Your task to perform on an android device: Is it going to rain this weekend? Image 0: 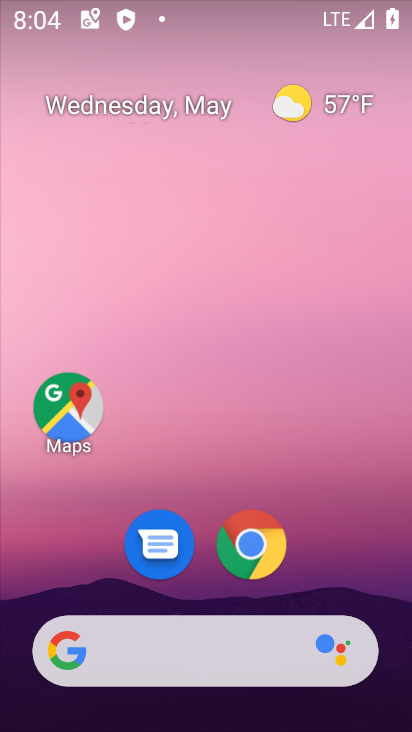
Step 0: drag from (334, 570) to (226, 8)
Your task to perform on an android device: Is it going to rain this weekend? Image 1: 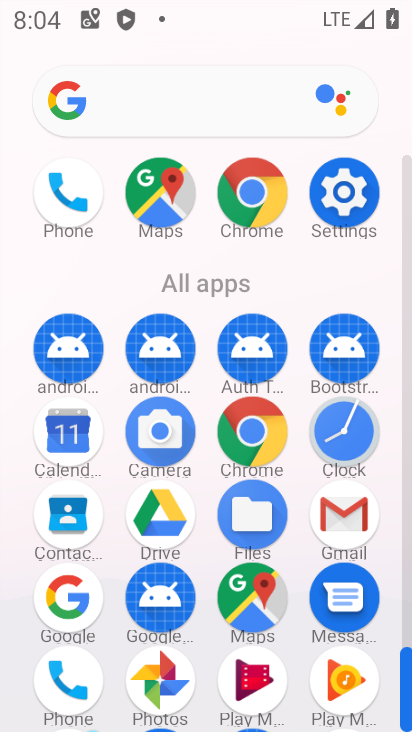
Step 1: click (254, 188)
Your task to perform on an android device: Is it going to rain this weekend? Image 2: 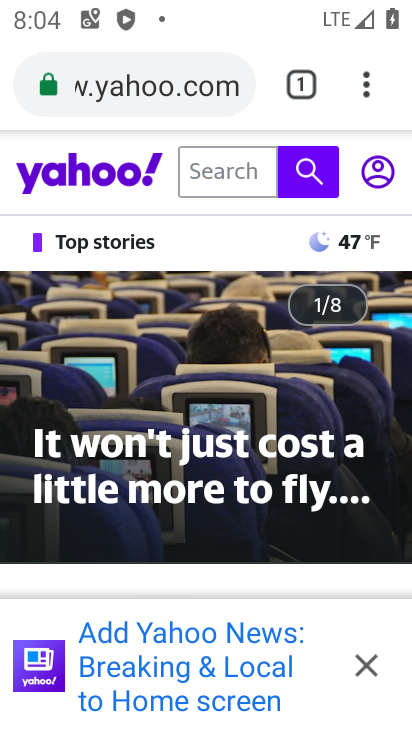
Step 2: click (191, 91)
Your task to perform on an android device: Is it going to rain this weekend? Image 3: 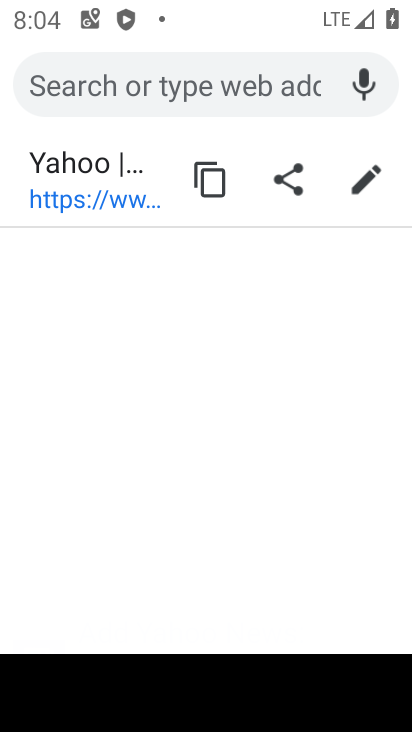
Step 3: type "Is it going to rain this weekend?"
Your task to perform on an android device: Is it going to rain this weekend? Image 4: 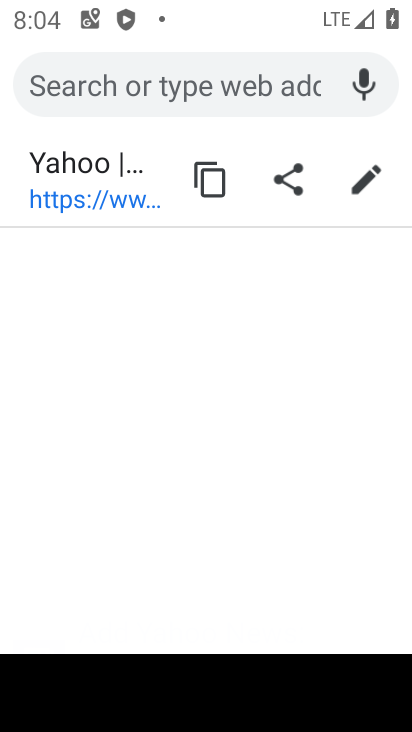
Step 4: click (138, 76)
Your task to perform on an android device: Is it going to rain this weekend? Image 5: 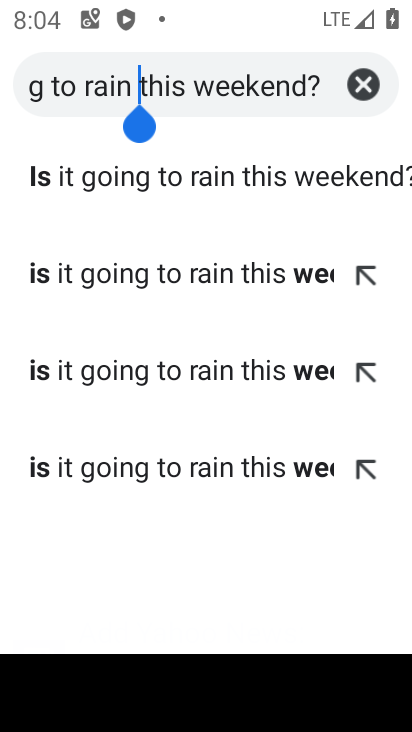
Step 5: click (184, 179)
Your task to perform on an android device: Is it going to rain this weekend? Image 6: 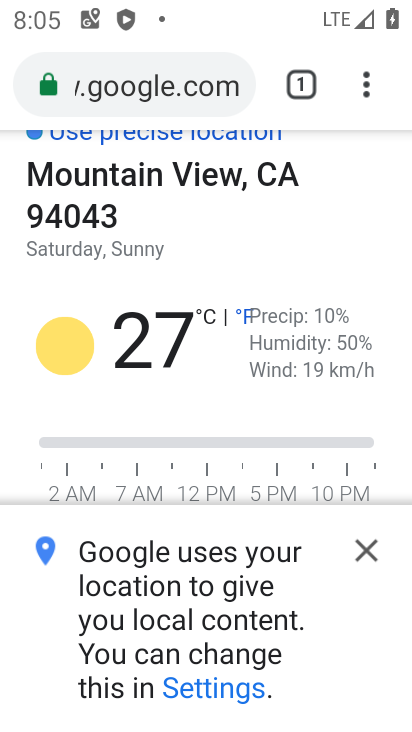
Step 6: click (376, 552)
Your task to perform on an android device: Is it going to rain this weekend? Image 7: 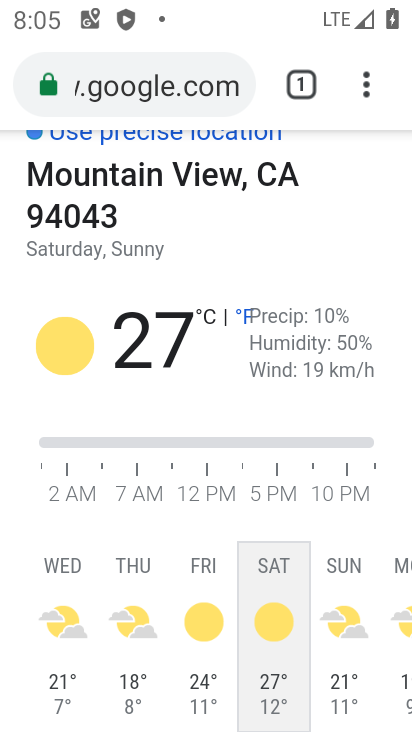
Step 7: task complete